Your task to perform on an android device: find photos in the google photos app Image 0: 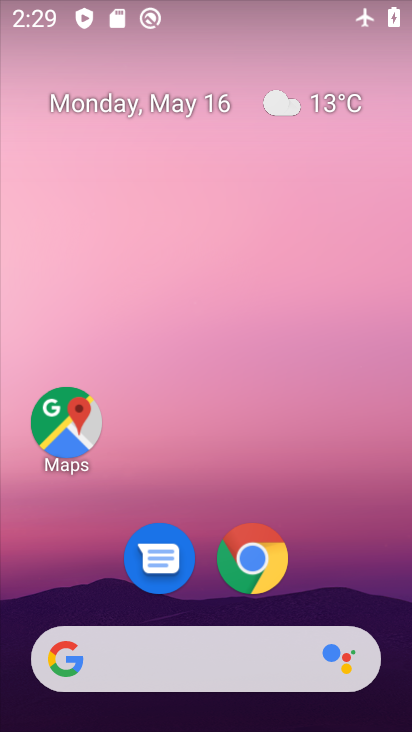
Step 0: drag from (233, 612) to (192, 11)
Your task to perform on an android device: find photos in the google photos app Image 1: 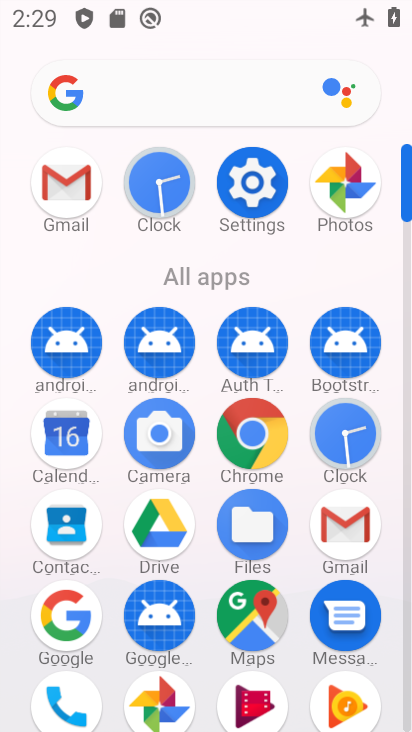
Step 1: click (156, 707)
Your task to perform on an android device: find photos in the google photos app Image 2: 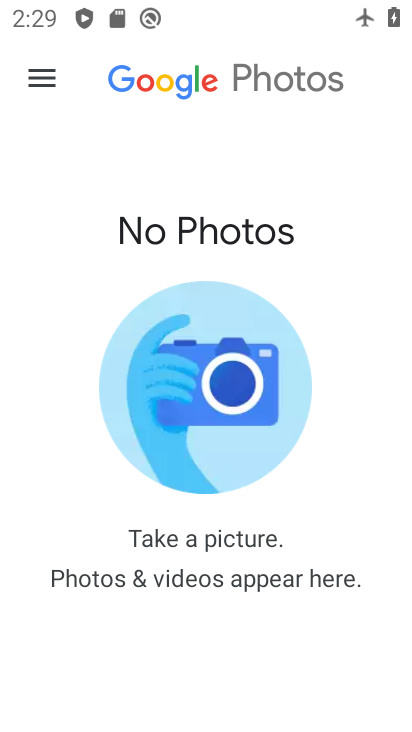
Step 2: click (49, 67)
Your task to perform on an android device: find photos in the google photos app Image 3: 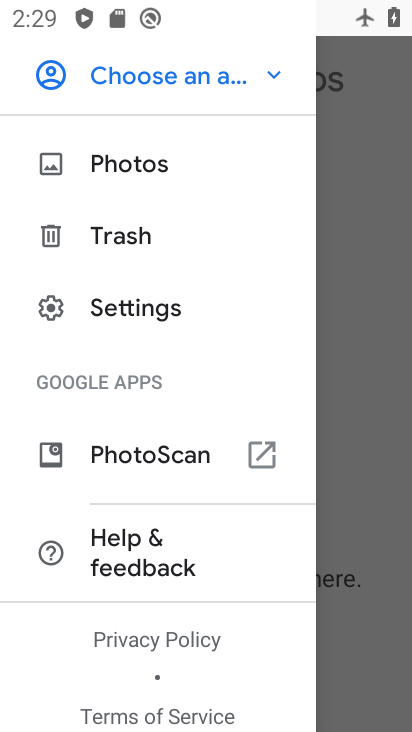
Step 3: click (118, 73)
Your task to perform on an android device: find photos in the google photos app Image 4: 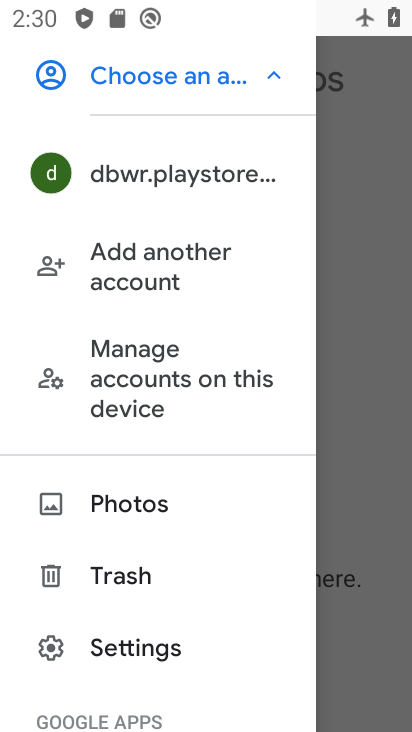
Step 4: click (108, 182)
Your task to perform on an android device: find photos in the google photos app Image 5: 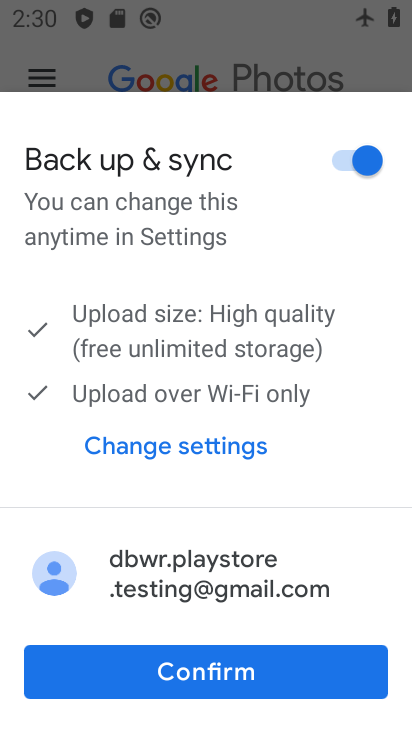
Step 5: click (243, 705)
Your task to perform on an android device: find photos in the google photos app Image 6: 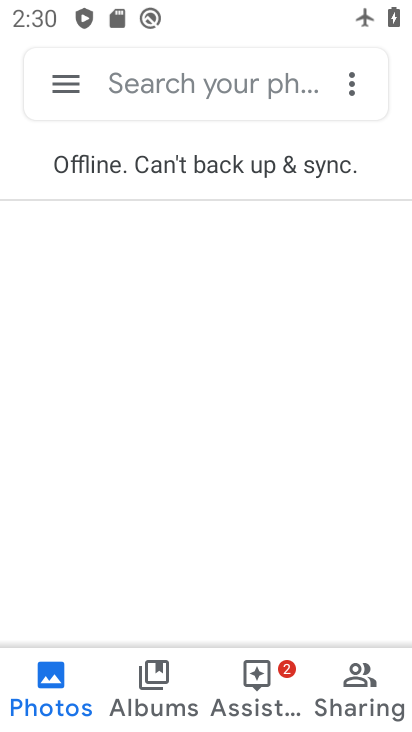
Step 6: task complete